Your task to perform on an android device: Go to Amazon Image 0: 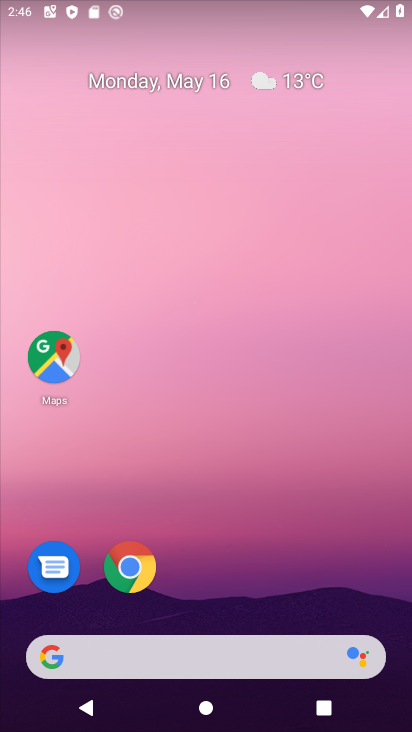
Step 0: click (127, 564)
Your task to perform on an android device: Go to Amazon Image 1: 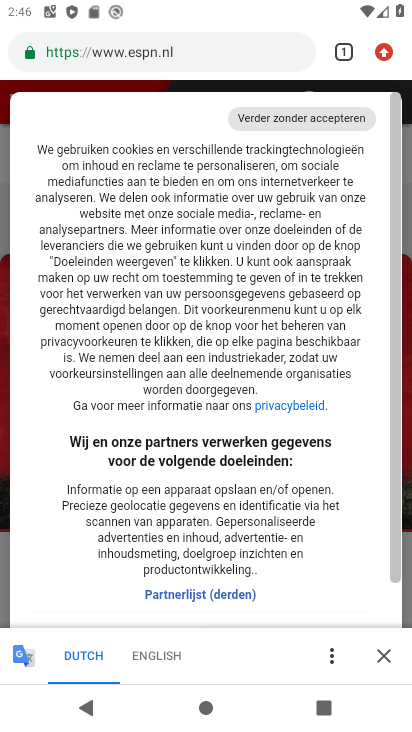
Step 1: click (209, 48)
Your task to perform on an android device: Go to Amazon Image 2: 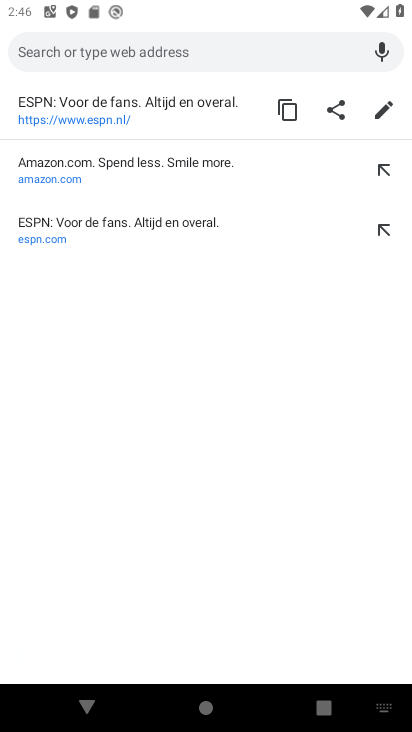
Step 2: click (66, 174)
Your task to perform on an android device: Go to Amazon Image 3: 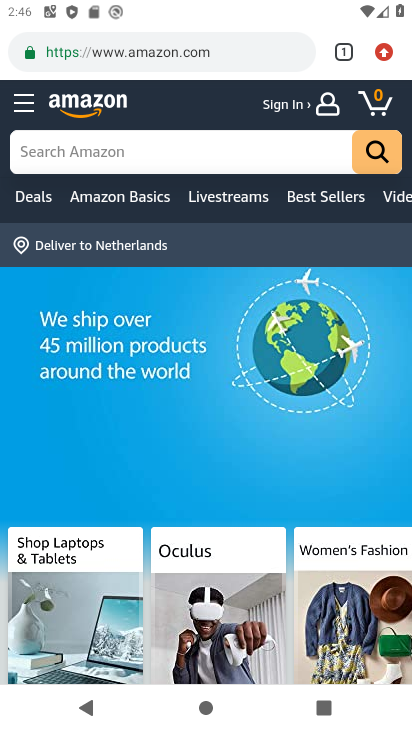
Step 3: task complete